Your task to perform on an android device: Open settings Image 0: 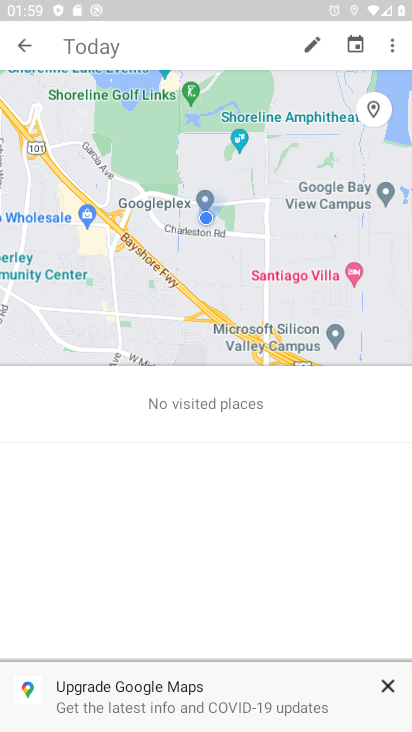
Step 0: press home button
Your task to perform on an android device: Open settings Image 1: 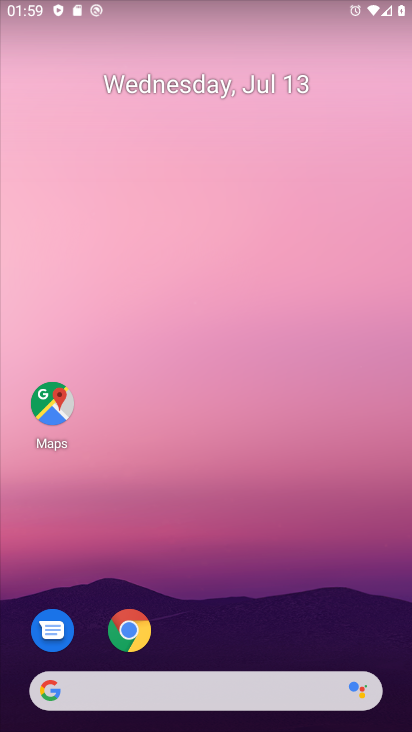
Step 1: drag from (215, 621) to (177, 228)
Your task to perform on an android device: Open settings Image 2: 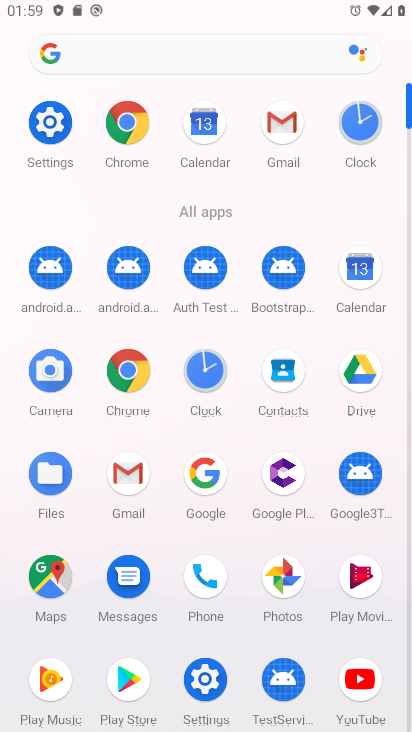
Step 2: click (70, 125)
Your task to perform on an android device: Open settings Image 3: 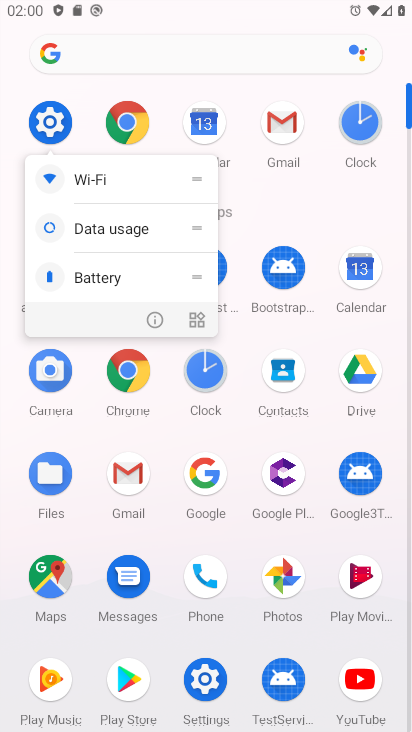
Step 3: click (70, 125)
Your task to perform on an android device: Open settings Image 4: 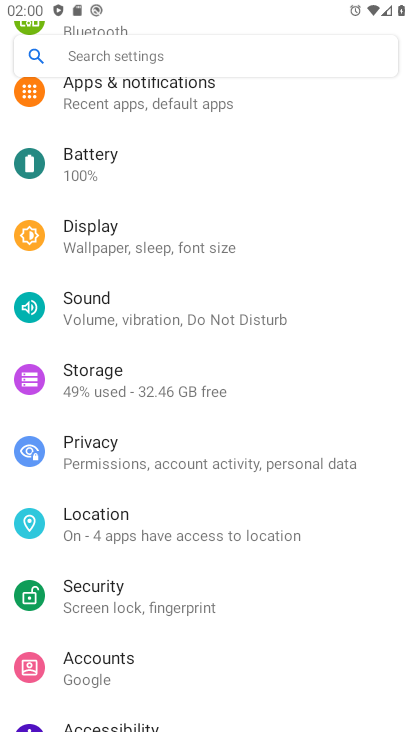
Step 4: task complete